Your task to perform on an android device: Add razer thresher to the cart on bestbuy, then select checkout. Image 0: 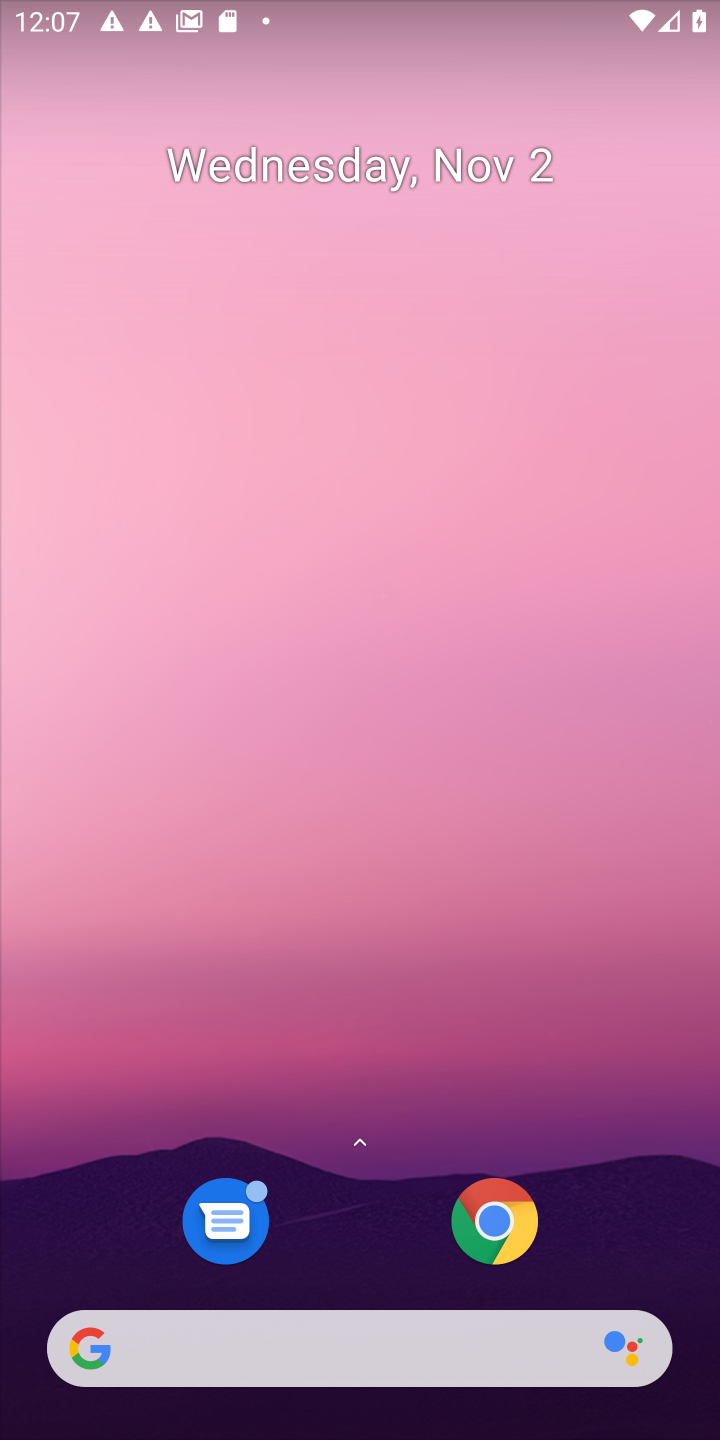
Step 0: click (293, 1329)
Your task to perform on an android device: Add razer thresher to the cart on bestbuy, then select checkout. Image 1: 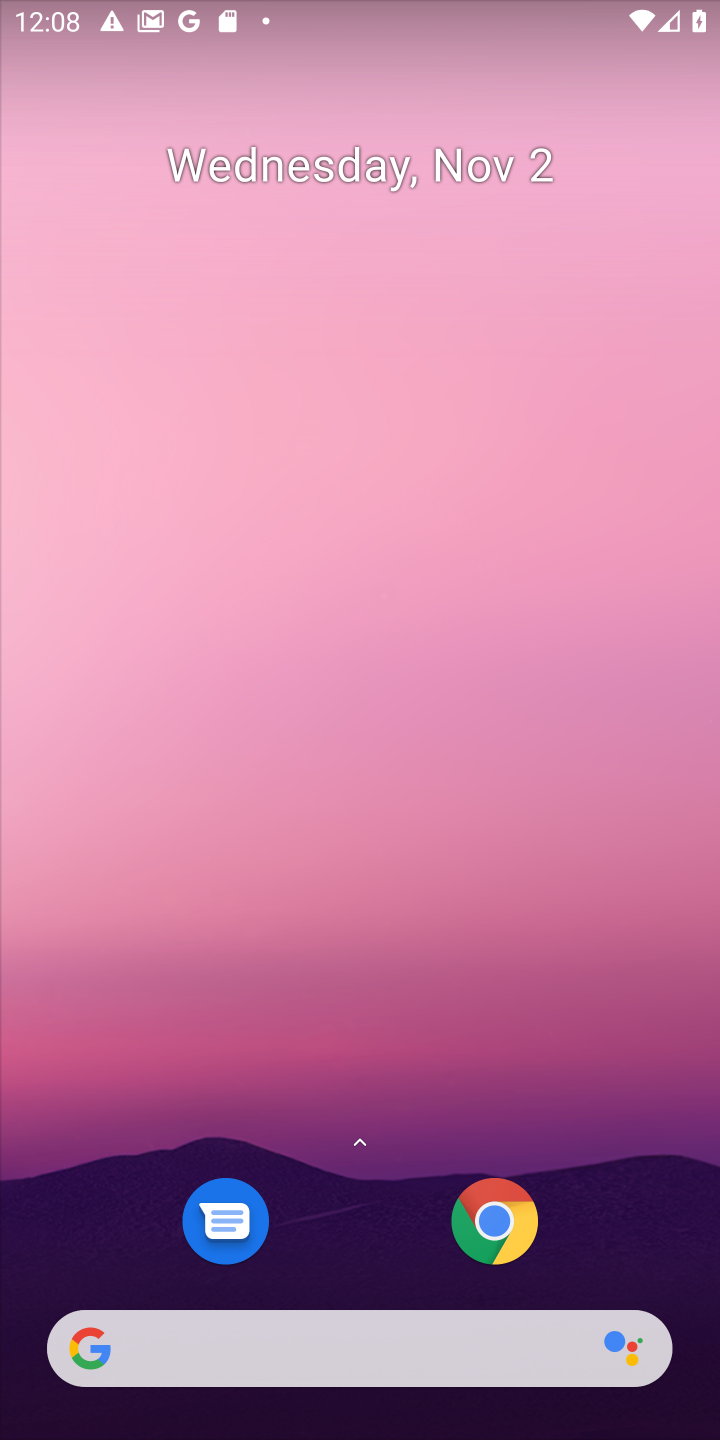
Step 1: type "bestbuy"
Your task to perform on an android device: Add razer thresher to the cart on bestbuy, then select checkout. Image 2: 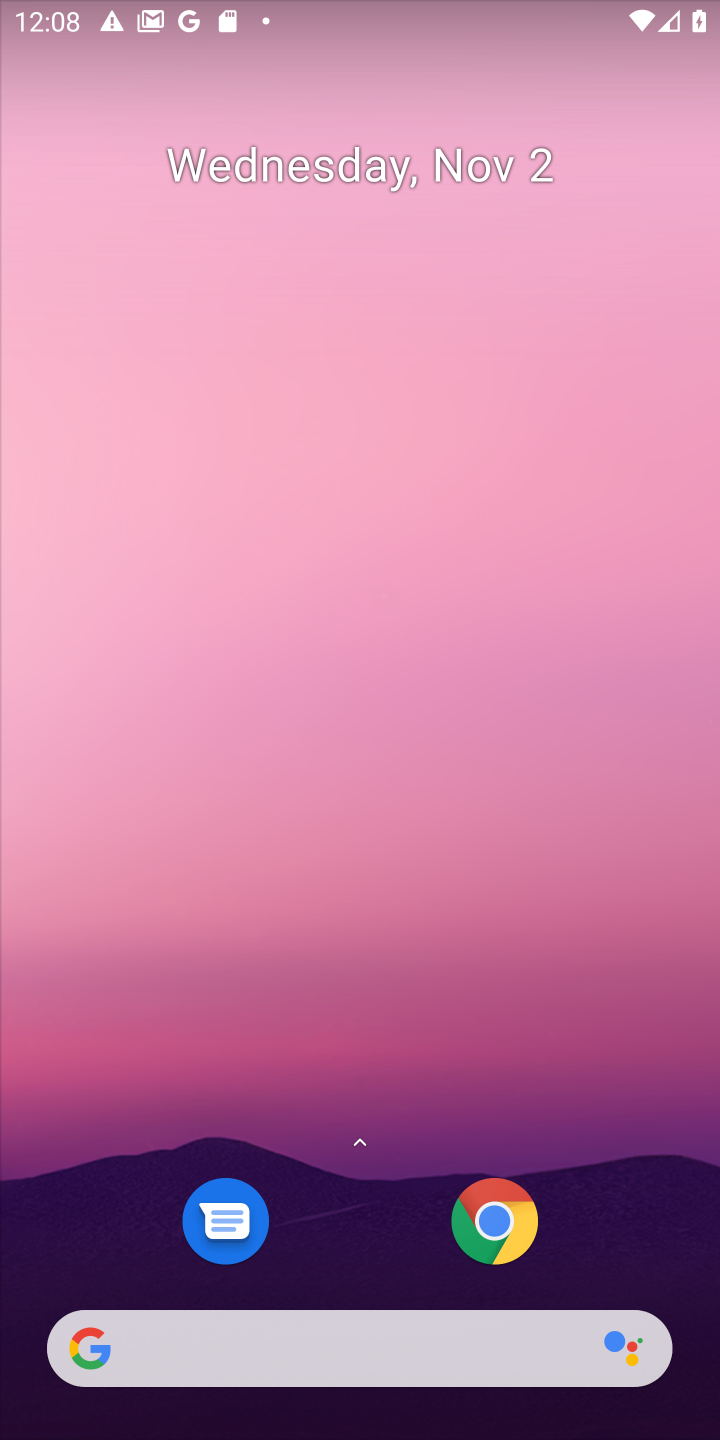
Step 2: click (274, 1355)
Your task to perform on an android device: Add razer thresher to the cart on bestbuy, then select checkout. Image 3: 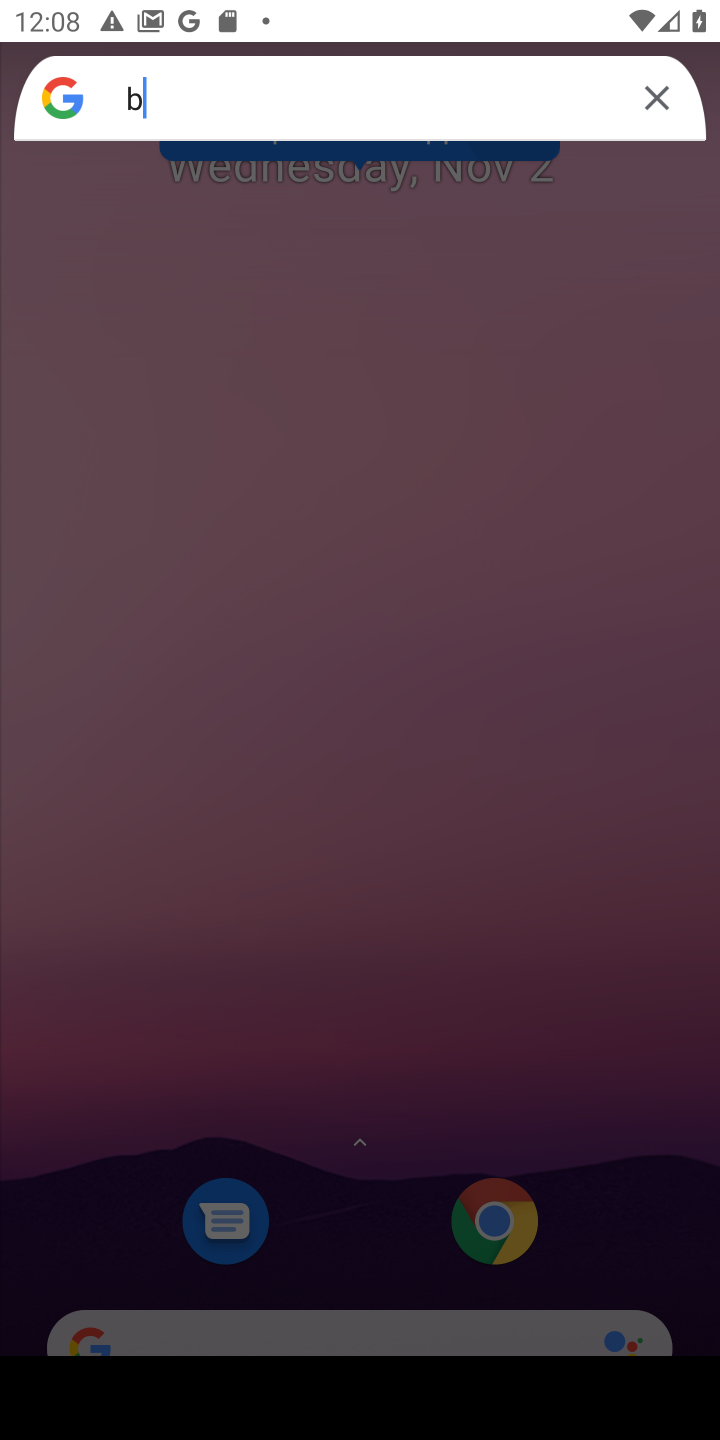
Step 3: type "bestbuy"
Your task to perform on an android device: Add razer thresher to the cart on bestbuy, then select checkout. Image 4: 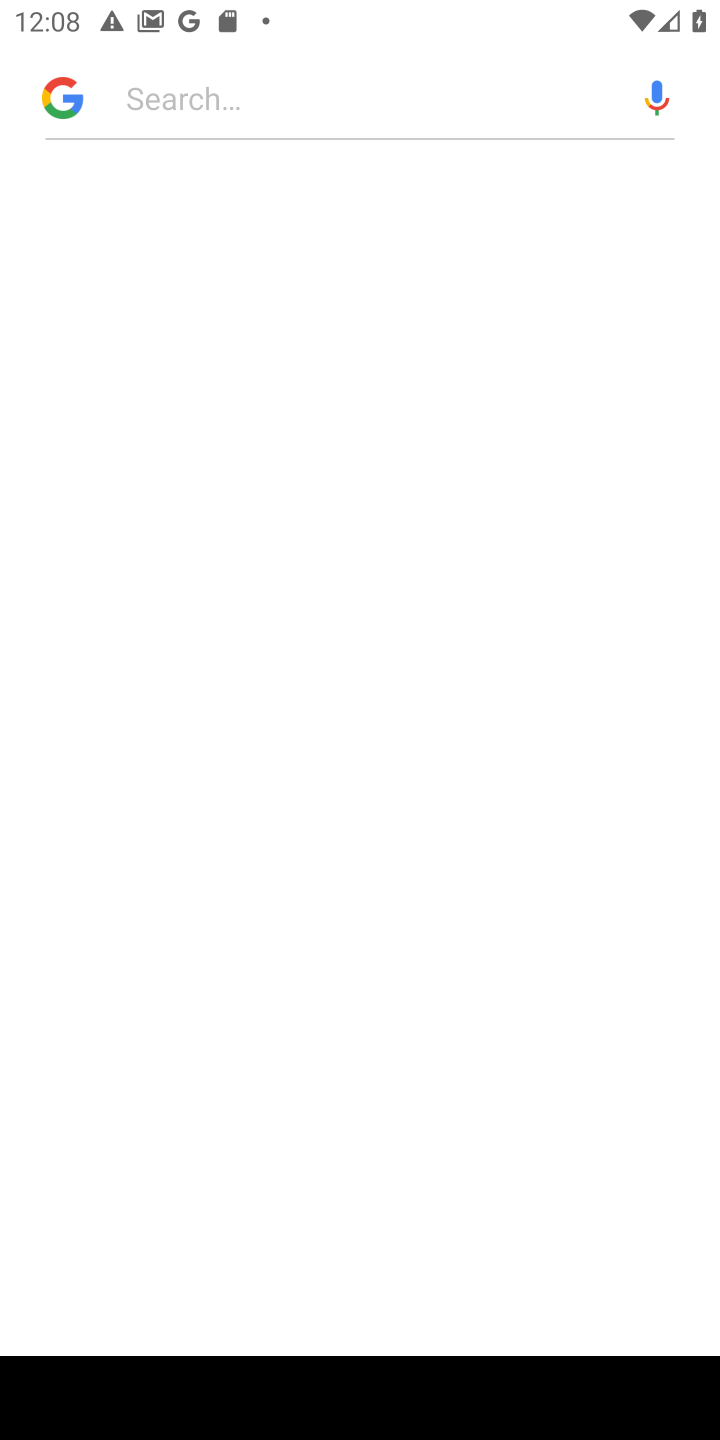
Step 4: task complete